Your task to perform on an android device: Open Google Chrome Image 0: 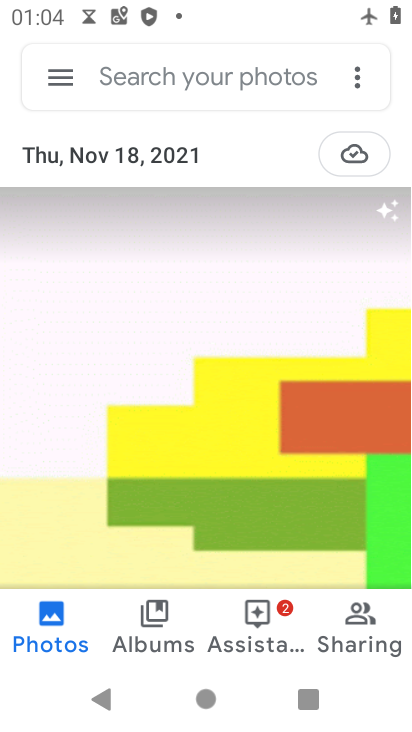
Step 0: click (0, 677)
Your task to perform on an android device: Open Google Chrome Image 1: 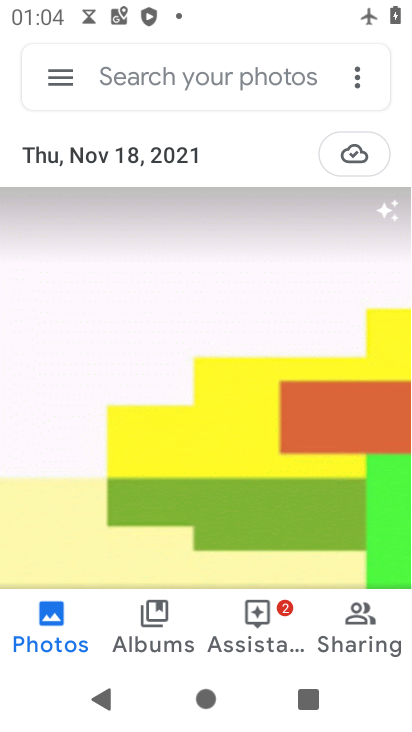
Step 1: press home button
Your task to perform on an android device: Open Google Chrome Image 2: 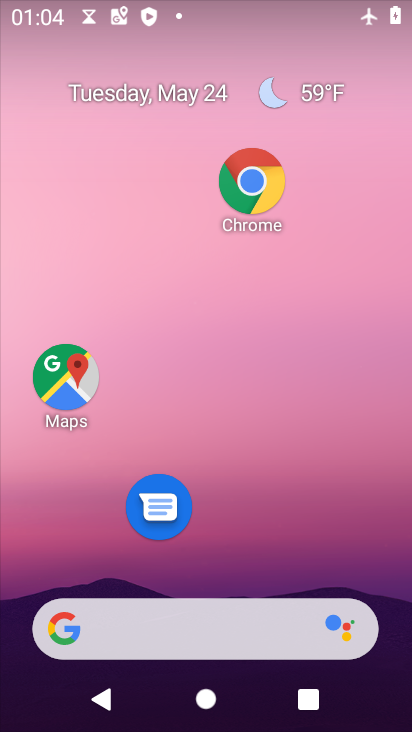
Step 2: drag from (281, 568) to (329, 288)
Your task to perform on an android device: Open Google Chrome Image 3: 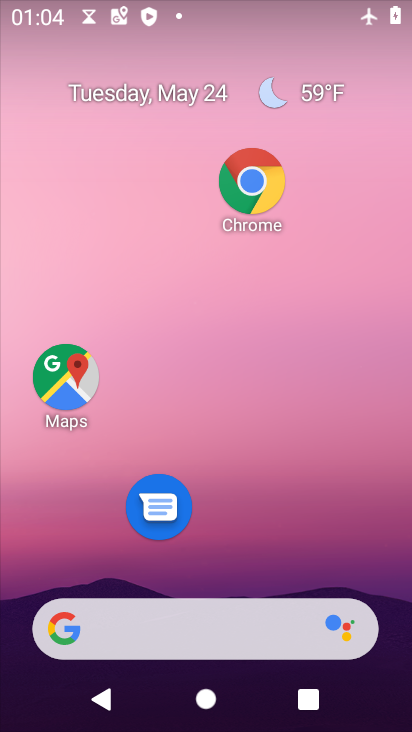
Step 3: drag from (256, 539) to (314, 241)
Your task to perform on an android device: Open Google Chrome Image 4: 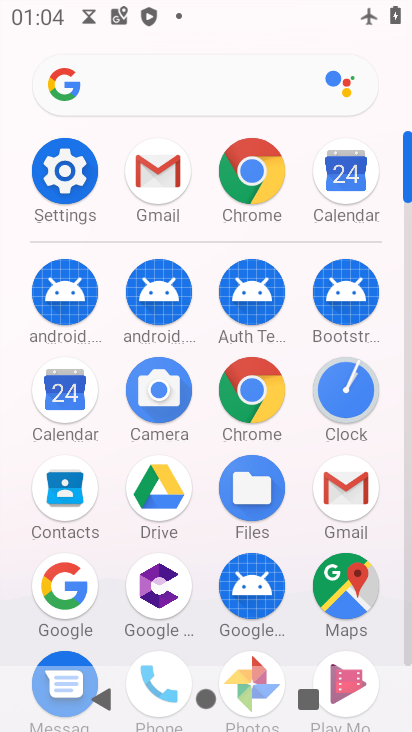
Step 4: click (244, 171)
Your task to perform on an android device: Open Google Chrome Image 5: 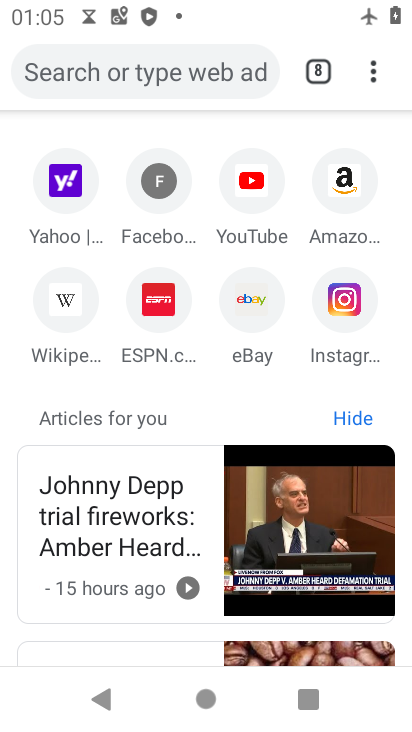
Step 5: task complete